Your task to perform on an android device: search for starred emails in the gmail app Image 0: 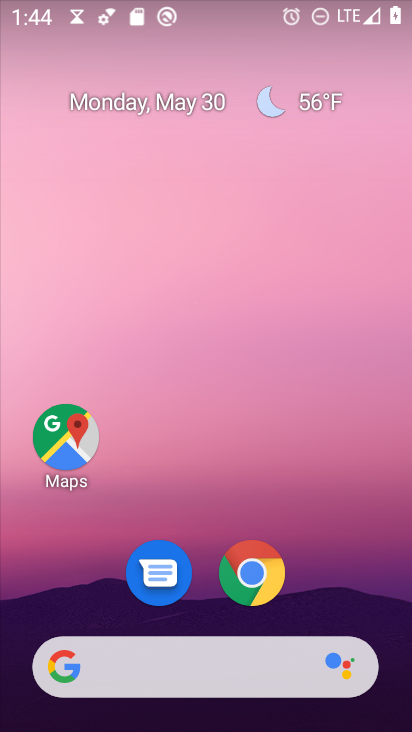
Step 0: drag from (285, 542) to (367, 40)
Your task to perform on an android device: search for starred emails in the gmail app Image 1: 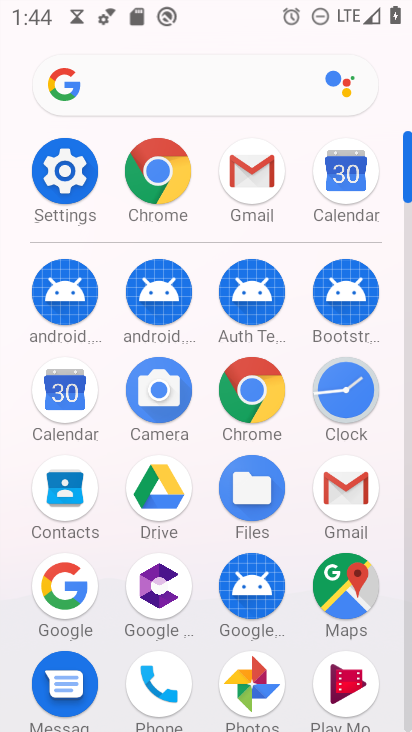
Step 1: click (335, 481)
Your task to perform on an android device: search for starred emails in the gmail app Image 2: 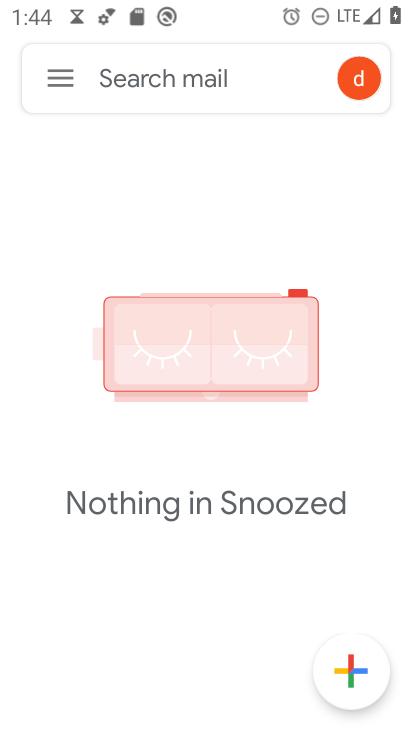
Step 2: click (64, 92)
Your task to perform on an android device: search for starred emails in the gmail app Image 3: 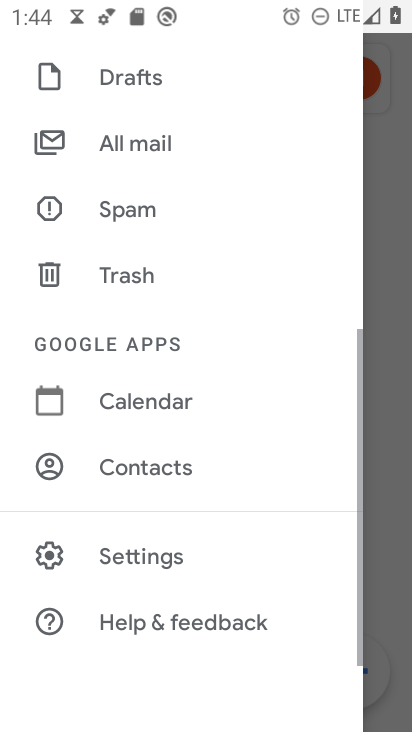
Step 3: drag from (164, 202) to (140, 713)
Your task to perform on an android device: search for starred emails in the gmail app Image 4: 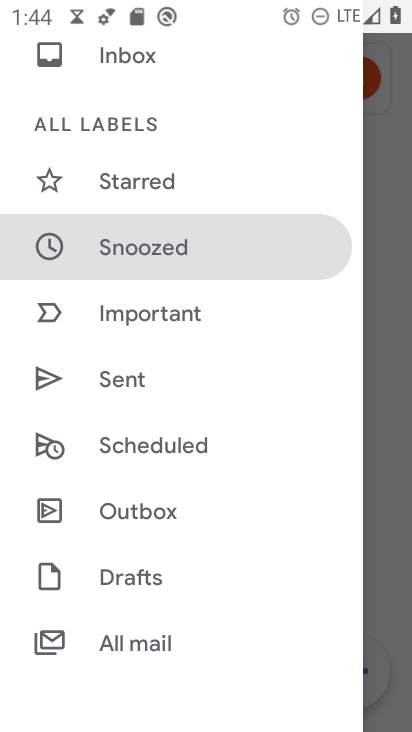
Step 4: click (170, 186)
Your task to perform on an android device: search for starred emails in the gmail app Image 5: 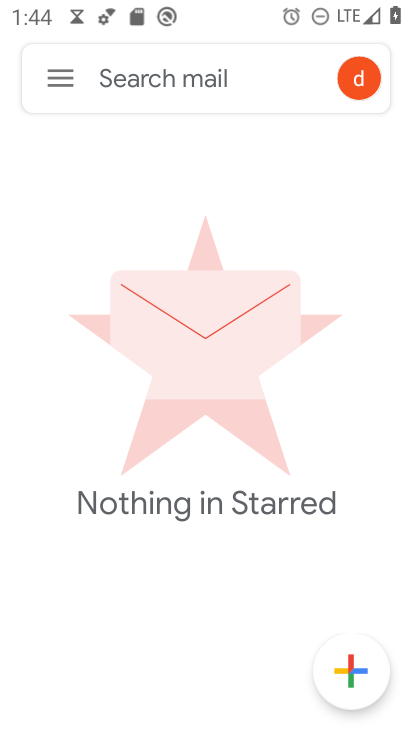
Step 5: task complete